Your task to perform on an android device: read, delete, or share a saved page in the chrome app Image 0: 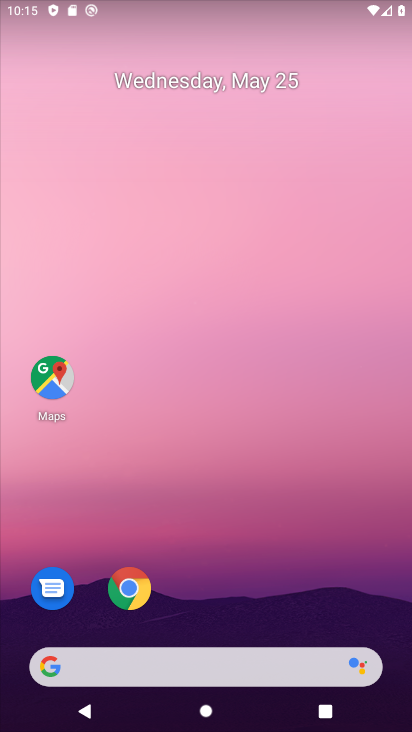
Step 0: click (136, 595)
Your task to perform on an android device: read, delete, or share a saved page in the chrome app Image 1: 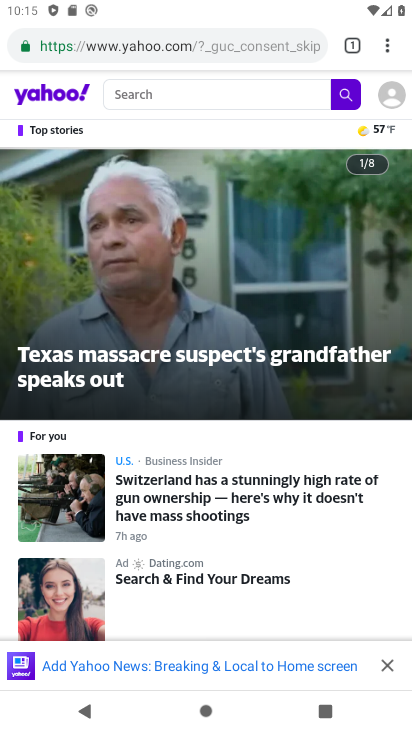
Step 1: task complete